Your task to perform on an android device: Turn on the flashlight Image 0: 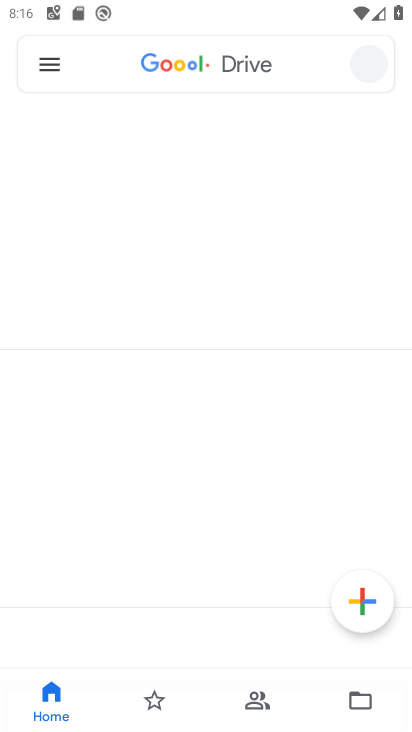
Step 0: drag from (326, 544) to (197, 114)
Your task to perform on an android device: Turn on the flashlight Image 1: 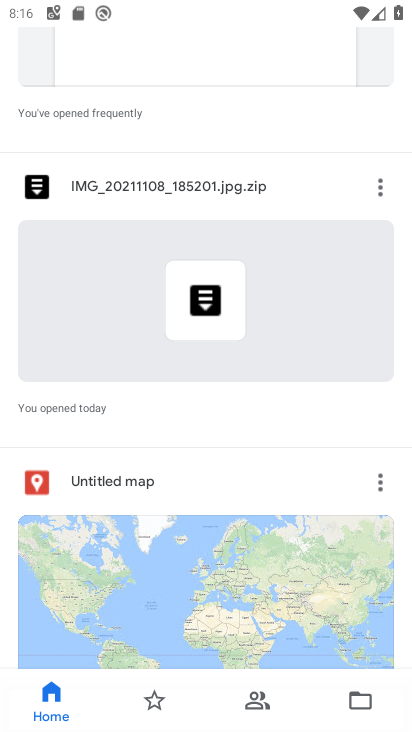
Step 1: task complete